Your task to perform on an android device: Open calendar and show me the first week of next month Image 0: 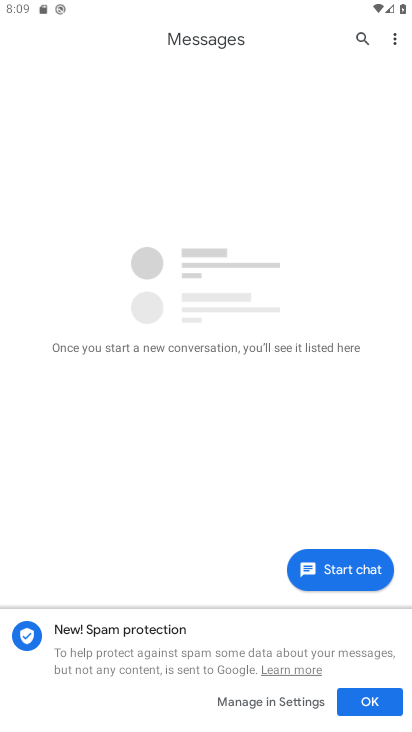
Step 0: press home button
Your task to perform on an android device: Open calendar and show me the first week of next month Image 1: 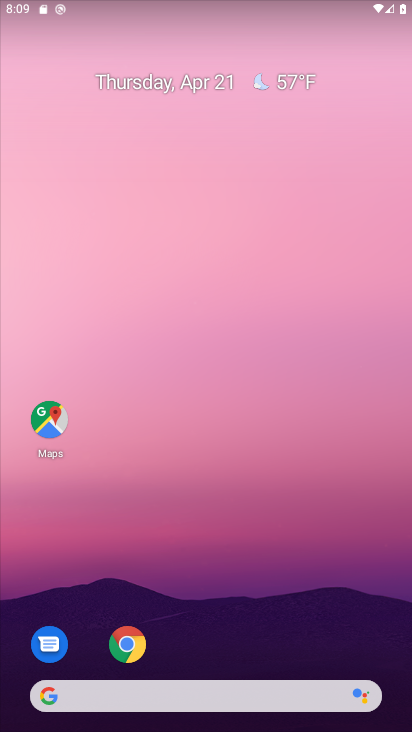
Step 1: drag from (217, 625) to (174, 11)
Your task to perform on an android device: Open calendar and show me the first week of next month Image 2: 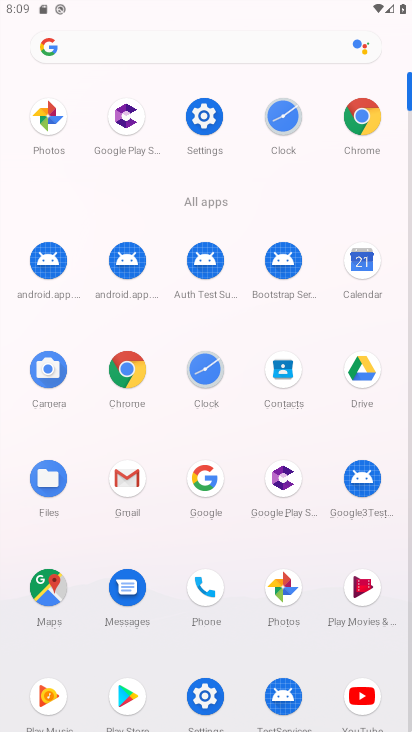
Step 2: click (362, 268)
Your task to perform on an android device: Open calendar and show me the first week of next month Image 3: 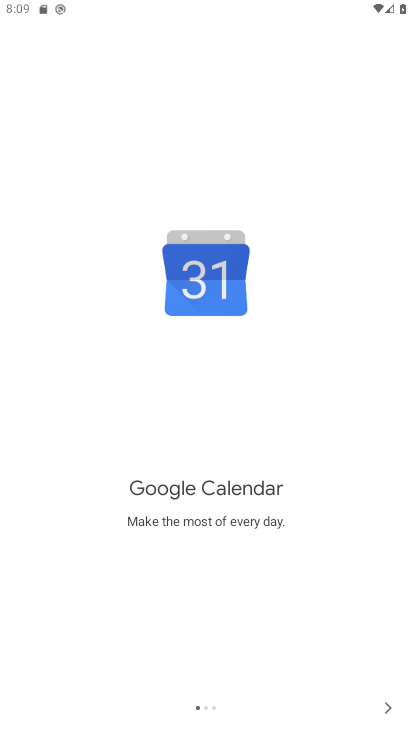
Step 3: click (385, 704)
Your task to perform on an android device: Open calendar and show me the first week of next month Image 4: 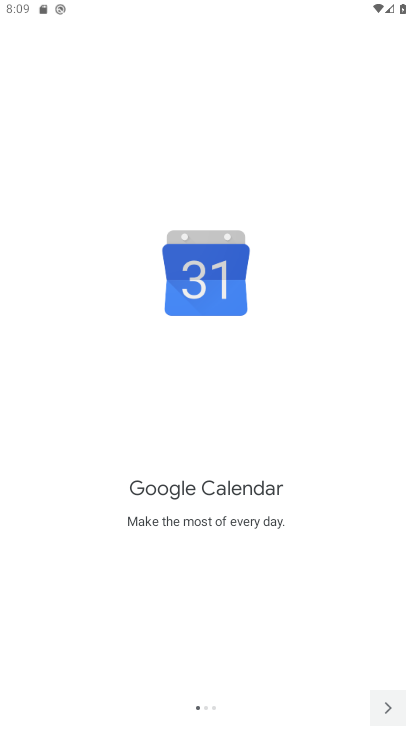
Step 4: click (385, 704)
Your task to perform on an android device: Open calendar and show me the first week of next month Image 5: 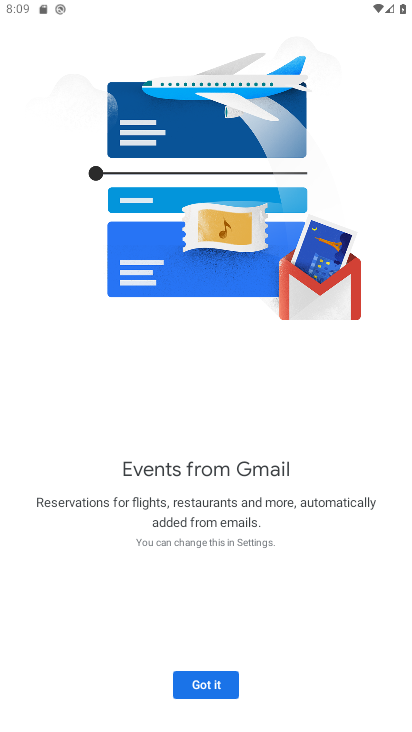
Step 5: click (386, 705)
Your task to perform on an android device: Open calendar and show me the first week of next month Image 6: 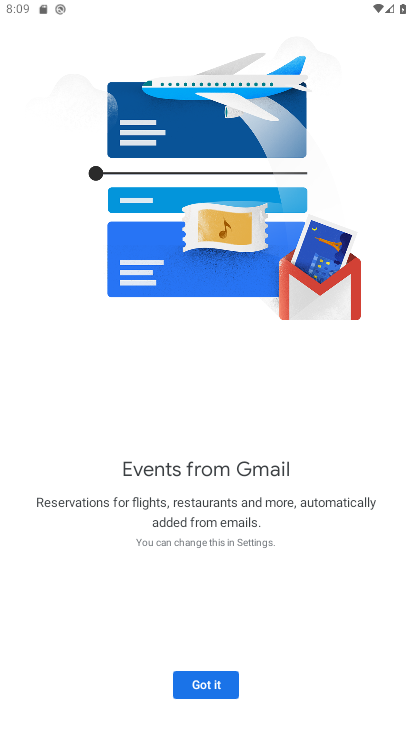
Step 6: click (227, 683)
Your task to perform on an android device: Open calendar and show me the first week of next month Image 7: 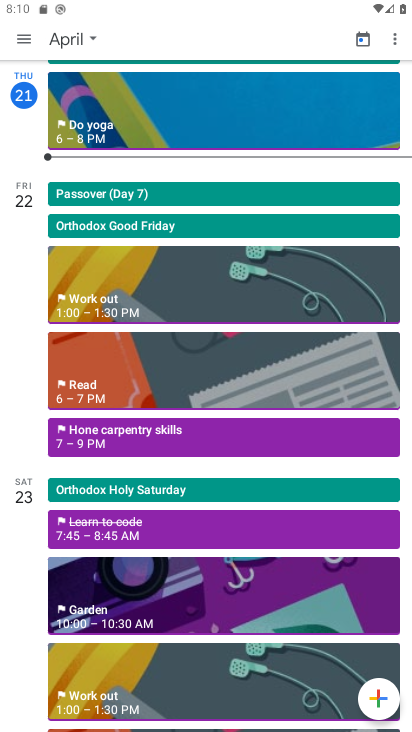
Step 7: click (84, 40)
Your task to perform on an android device: Open calendar and show me the first week of next month Image 8: 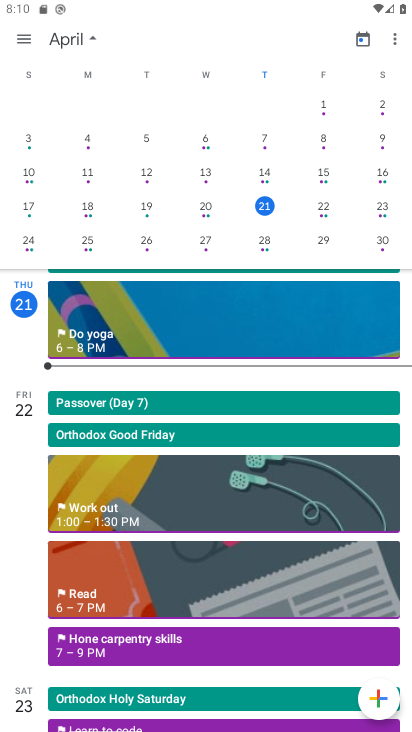
Step 8: click (25, 35)
Your task to perform on an android device: Open calendar and show me the first week of next month Image 9: 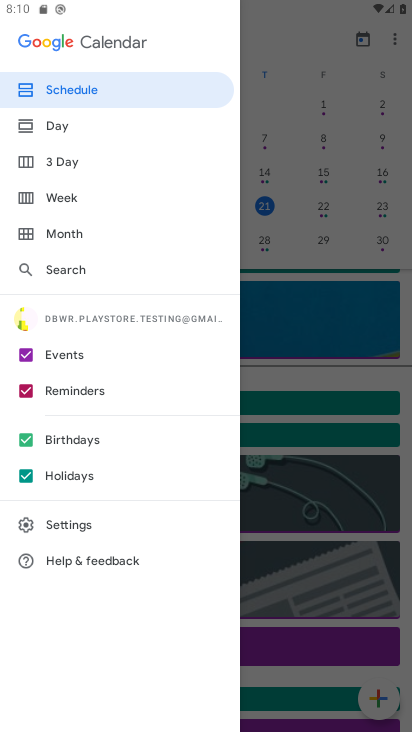
Step 9: click (86, 198)
Your task to perform on an android device: Open calendar and show me the first week of next month Image 10: 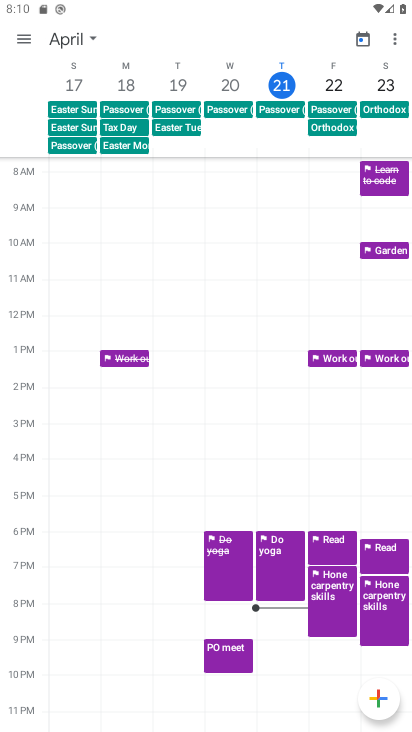
Step 10: click (90, 34)
Your task to perform on an android device: Open calendar and show me the first week of next month Image 11: 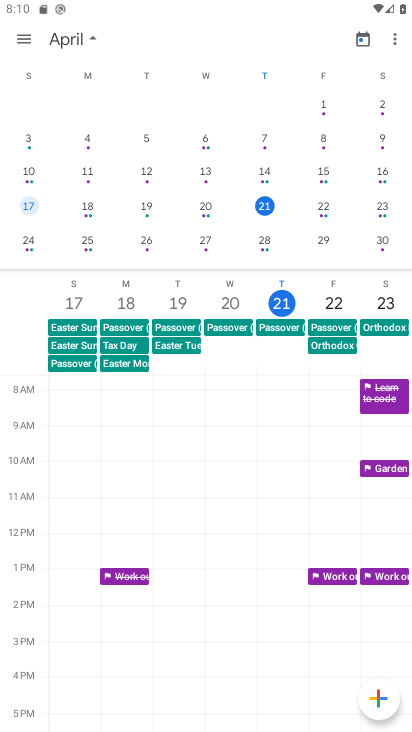
Step 11: task complete